Your task to perform on an android device: toggle airplane mode Image 0: 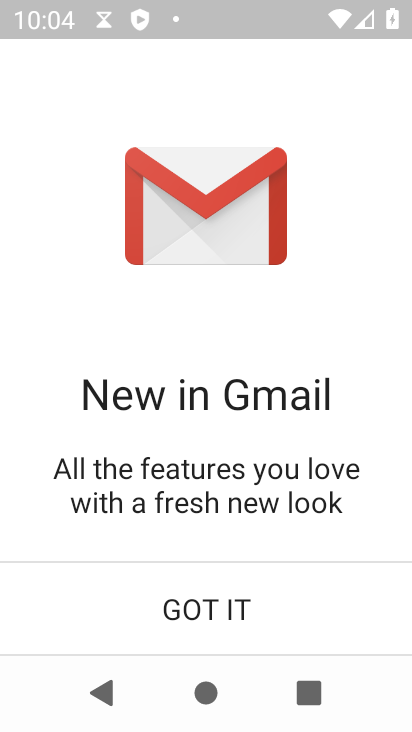
Step 0: press back button
Your task to perform on an android device: toggle airplane mode Image 1: 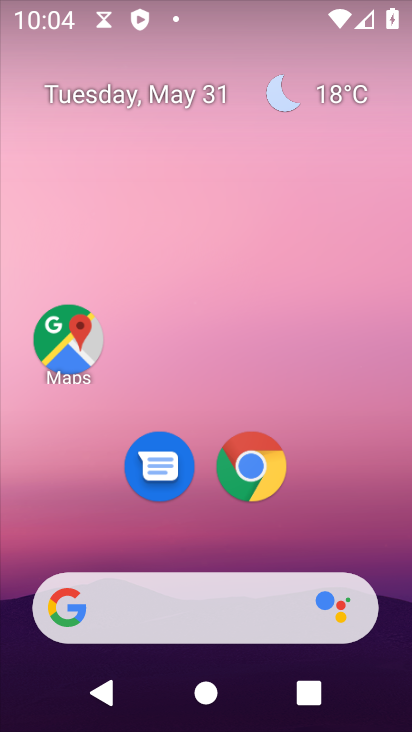
Step 1: drag from (334, 519) to (286, 23)
Your task to perform on an android device: toggle airplane mode Image 2: 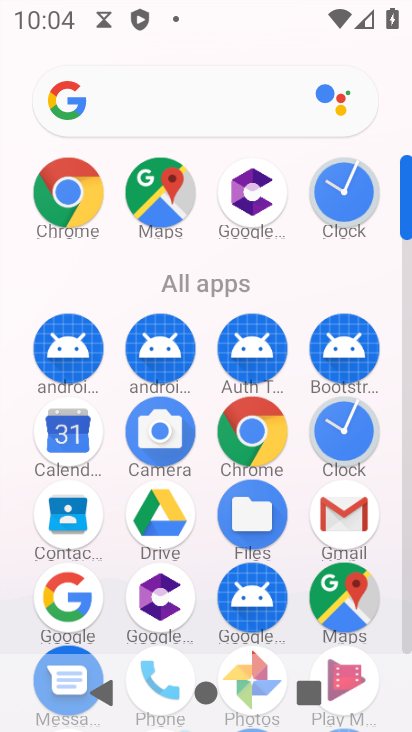
Step 2: drag from (16, 564) to (0, 237)
Your task to perform on an android device: toggle airplane mode Image 3: 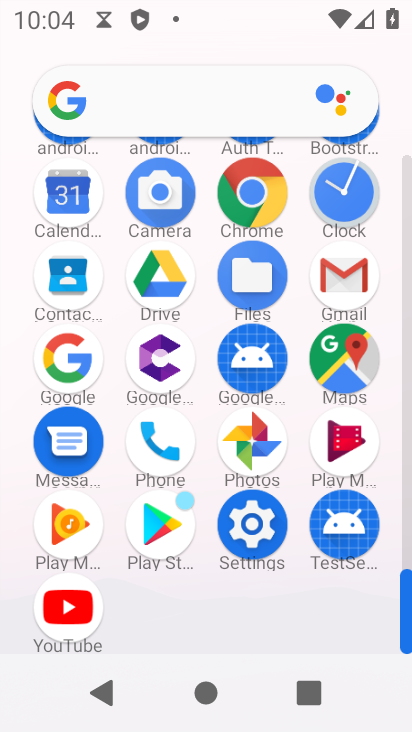
Step 3: click (249, 522)
Your task to perform on an android device: toggle airplane mode Image 4: 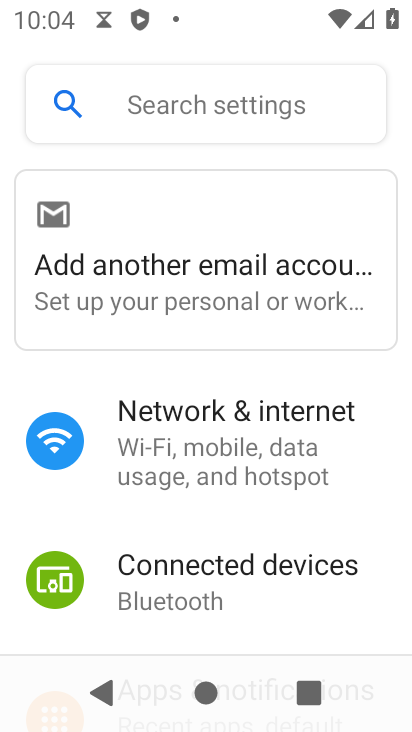
Step 4: drag from (219, 572) to (224, 181)
Your task to perform on an android device: toggle airplane mode Image 5: 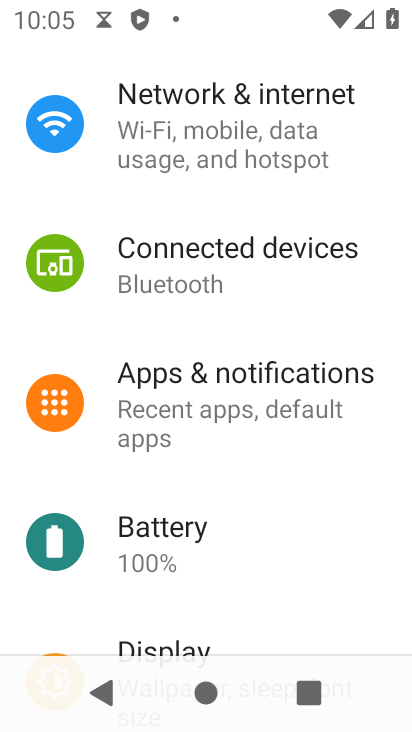
Step 5: drag from (223, 532) to (239, 216)
Your task to perform on an android device: toggle airplane mode Image 6: 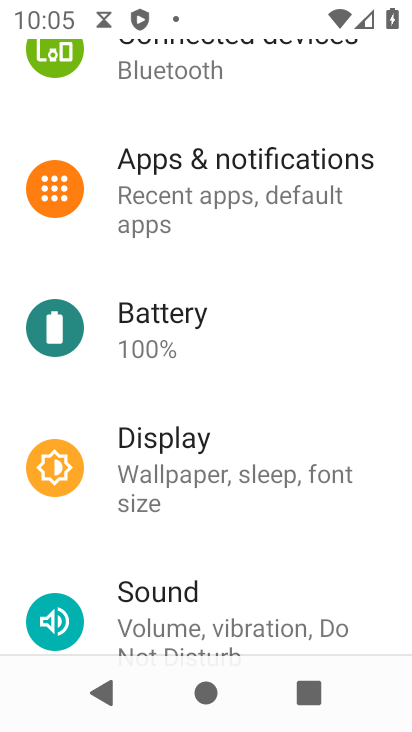
Step 6: drag from (264, 171) to (249, 562)
Your task to perform on an android device: toggle airplane mode Image 7: 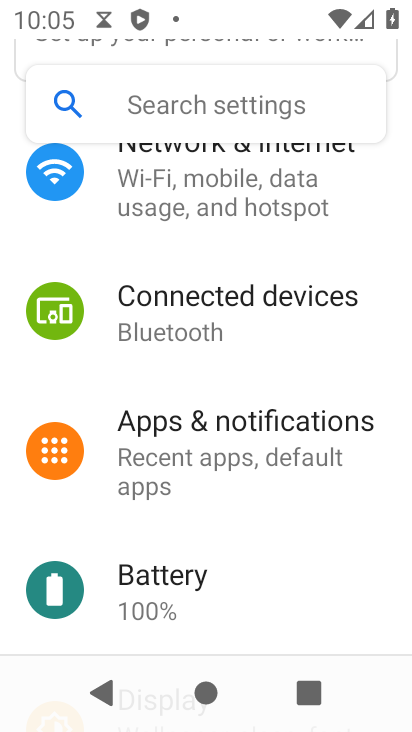
Step 7: drag from (247, 214) to (255, 552)
Your task to perform on an android device: toggle airplane mode Image 8: 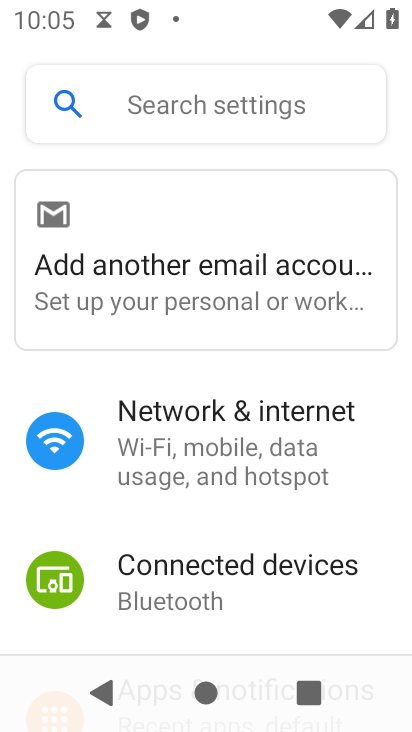
Step 8: click (251, 459)
Your task to perform on an android device: toggle airplane mode Image 9: 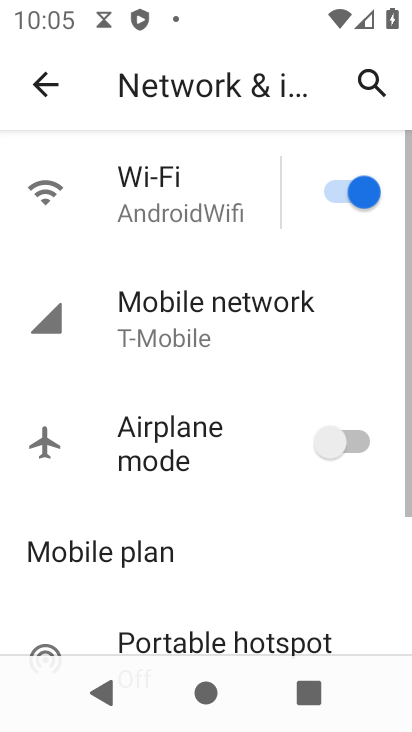
Step 9: click (359, 432)
Your task to perform on an android device: toggle airplane mode Image 10: 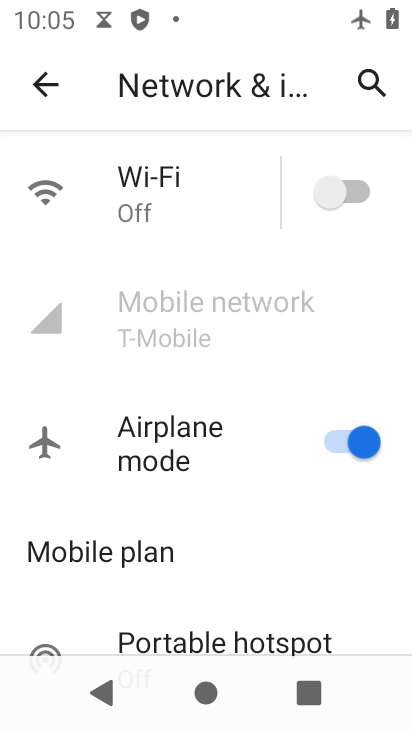
Step 10: task complete